Your task to perform on an android device: turn on improve location accuracy Image 0: 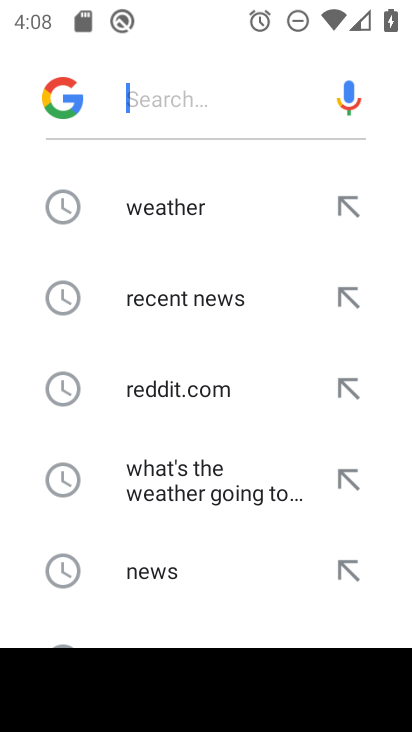
Step 0: press home button
Your task to perform on an android device: turn on improve location accuracy Image 1: 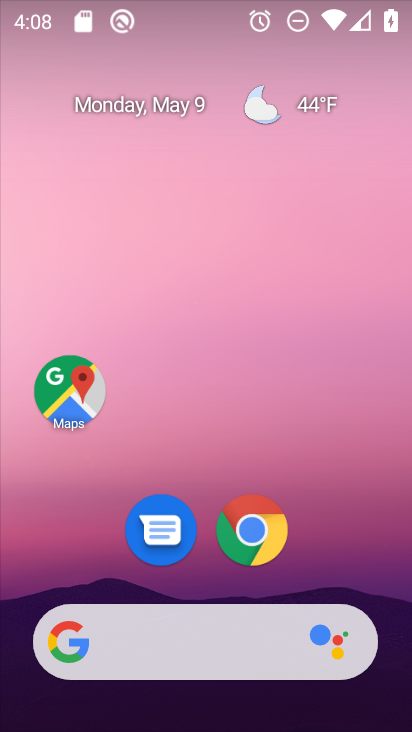
Step 1: drag from (208, 579) to (231, 145)
Your task to perform on an android device: turn on improve location accuracy Image 2: 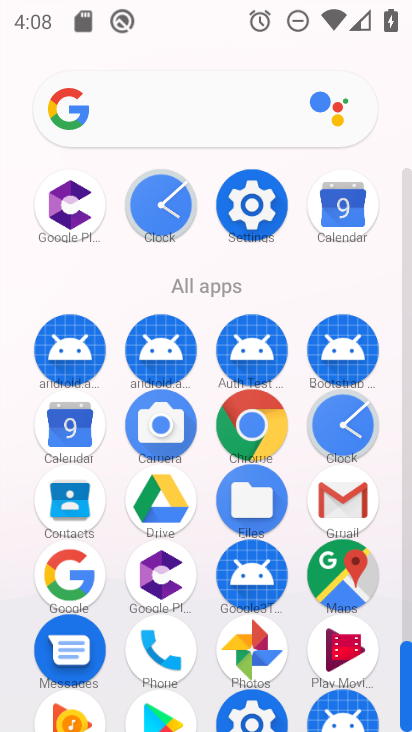
Step 2: click (257, 202)
Your task to perform on an android device: turn on improve location accuracy Image 3: 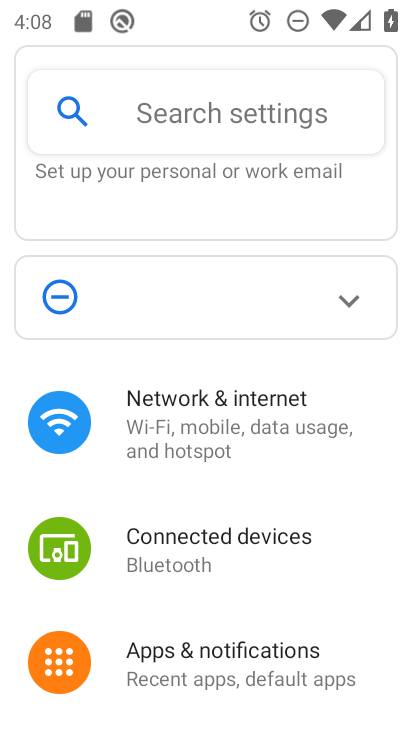
Step 3: drag from (204, 618) to (200, 226)
Your task to perform on an android device: turn on improve location accuracy Image 4: 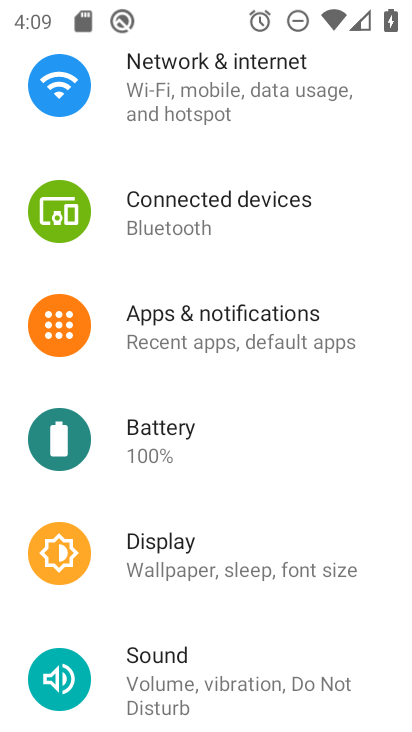
Step 4: drag from (210, 621) to (231, 161)
Your task to perform on an android device: turn on improve location accuracy Image 5: 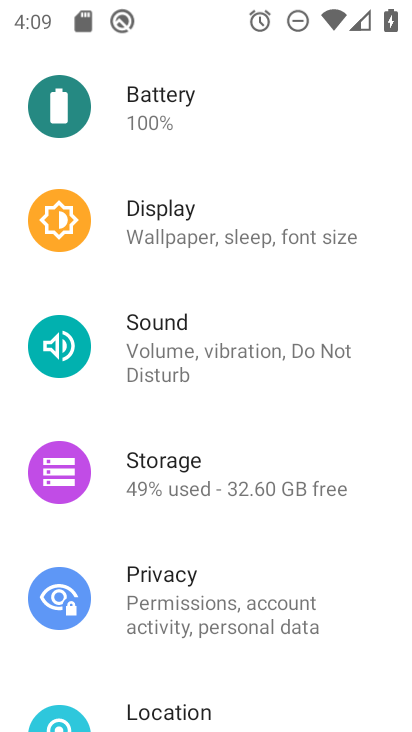
Step 5: click (199, 701)
Your task to perform on an android device: turn on improve location accuracy Image 6: 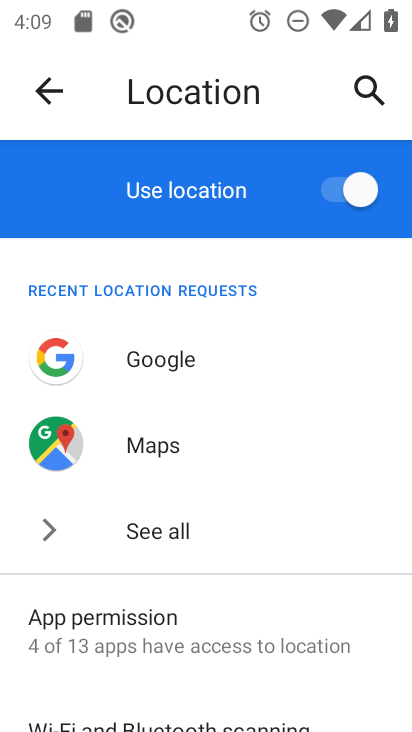
Step 6: drag from (210, 687) to (226, 277)
Your task to perform on an android device: turn on improve location accuracy Image 7: 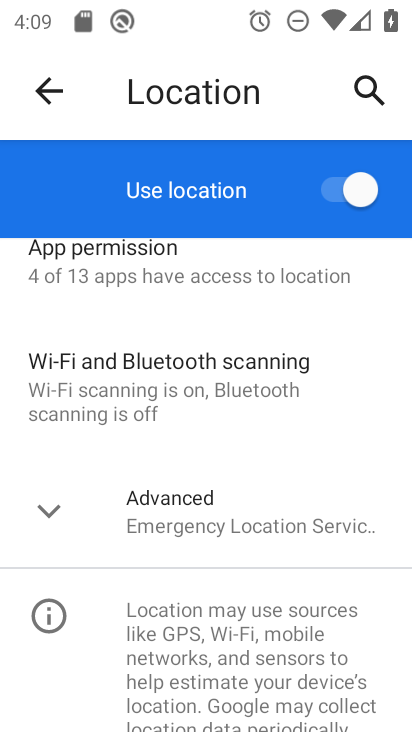
Step 7: click (45, 507)
Your task to perform on an android device: turn on improve location accuracy Image 8: 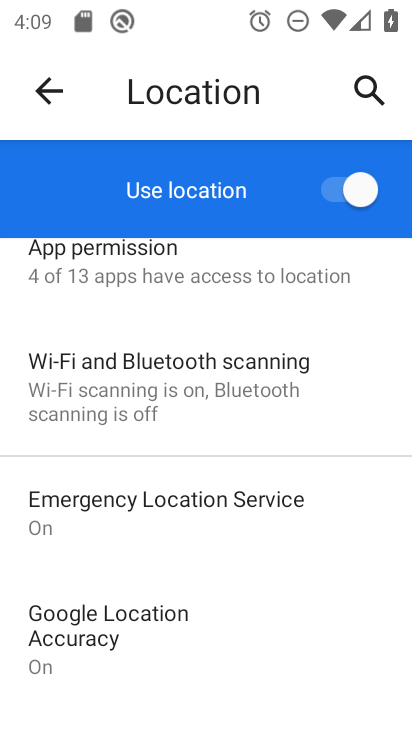
Step 8: click (141, 629)
Your task to perform on an android device: turn on improve location accuracy Image 9: 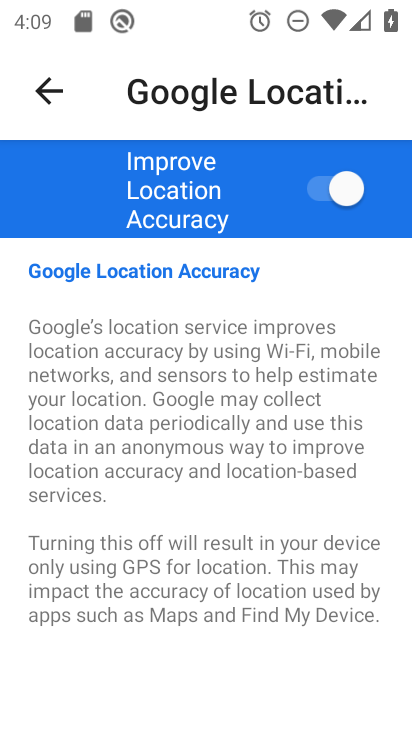
Step 9: task complete